Your task to perform on an android device: Go to Amazon Image 0: 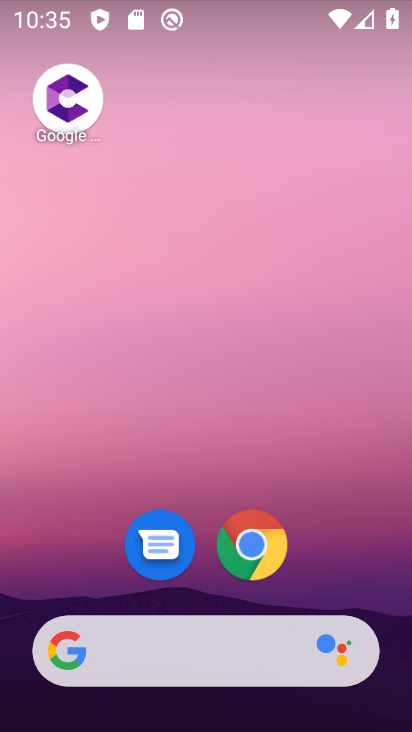
Step 0: drag from (394, 624) to (281, 38)
Your task to perform on an android device: Go to Amazon Image 1: 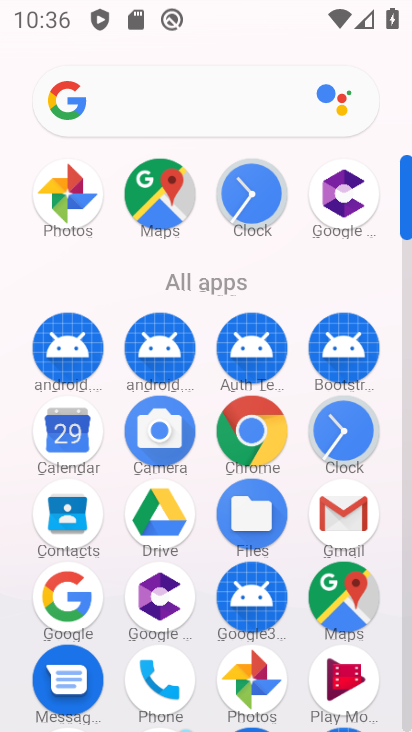
Step 1: click (78, 603)
Your task to perform on an android device: Go to Amazon Image 2: 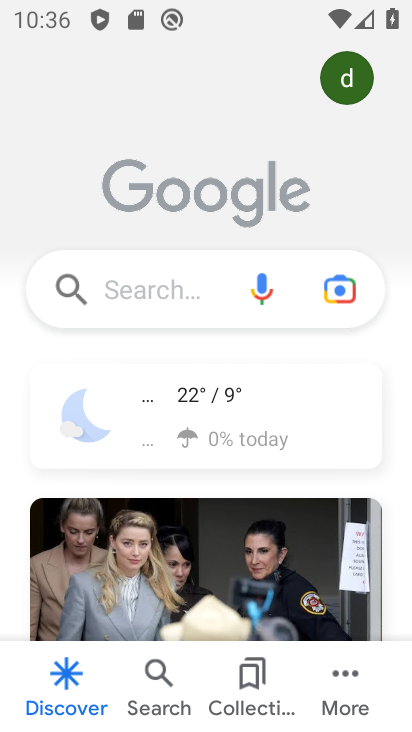
Step 2: click (125, 291)
Your task to perform on an android device: Go to Amazon Image 3: 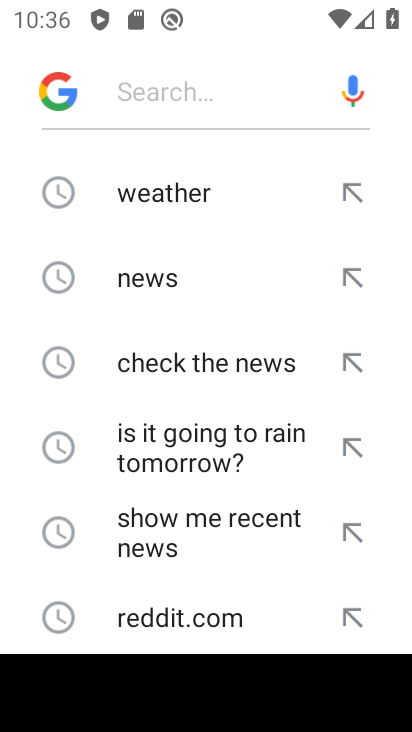
Step 3: drag from (123, 594) to (177, 220)
Your task to perform on an android device: Go to Amazon Image 4: 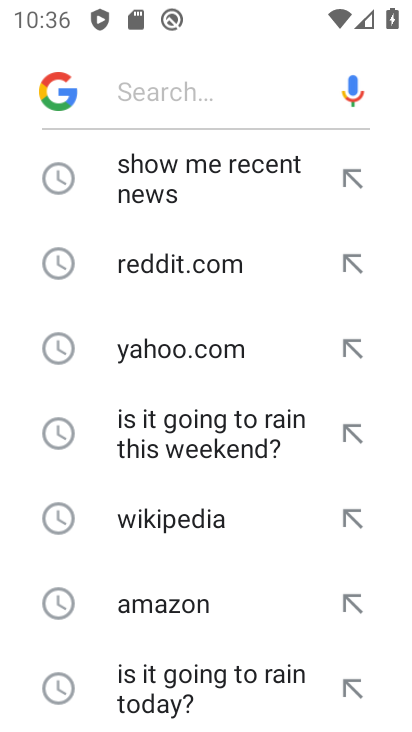
Step 4: click (176, 621)
Your task to perform on an android device: Go to Amazon Image 5: 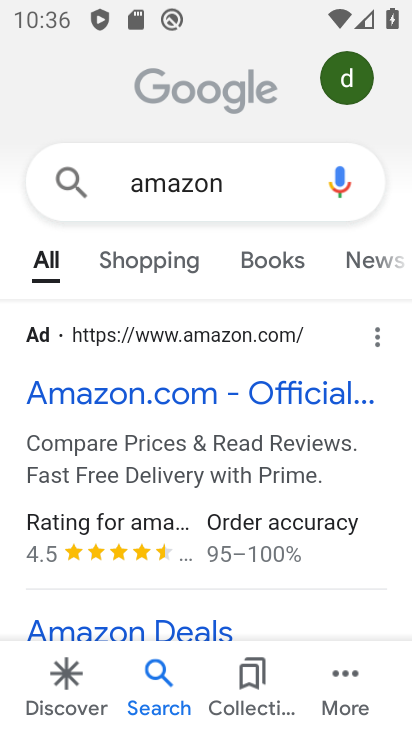
Step 5: task complete